Your task to perform on an android device: turn on improve location accuracy Image 0: 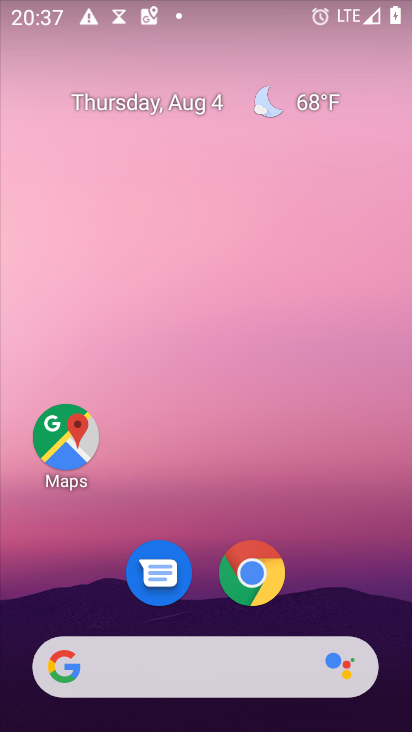
Step 0: drag from (250, 645) to (292, 234)
Your task to perform on an android device: turn on improve location accuracy Image 1: 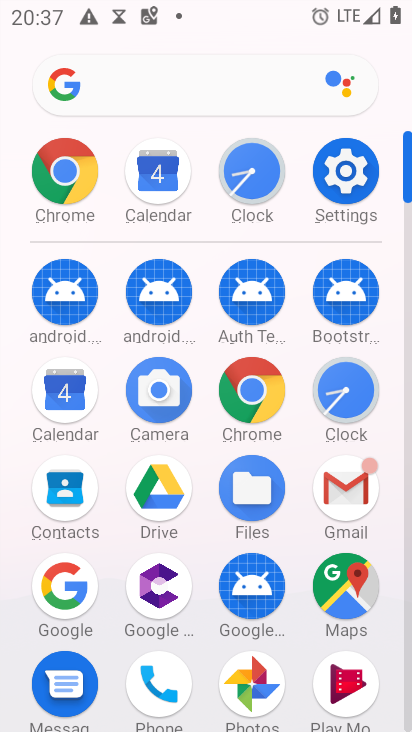
Step 1: click (357, 165)
Your task to perform on an android device: turn on improve location accuracy Image 2: 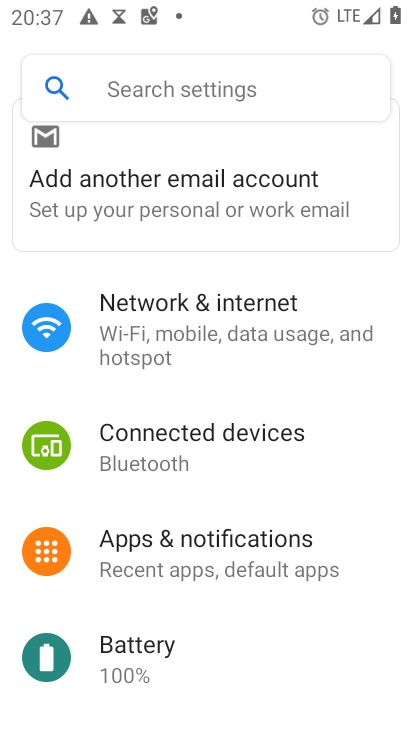
Step 2: drag from (160, 515) to (185, 112)
Your task to perform on an android device: turn on improve location accuracy Image 3: 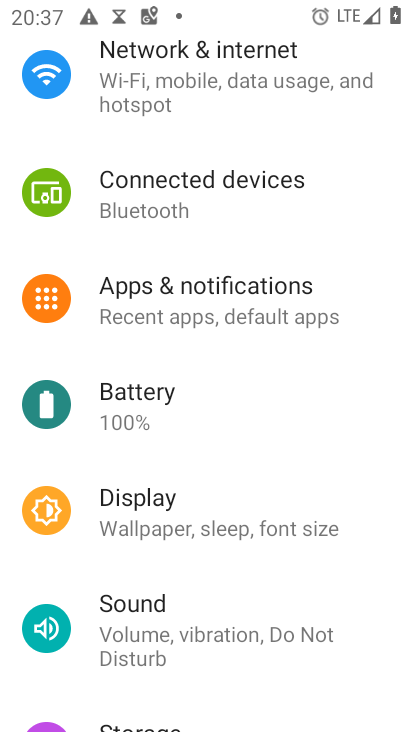
Step 3: drag from (139, 622) to (134, 259)
Your task to perform on an android device: turn on improve location accuracy Image 4: 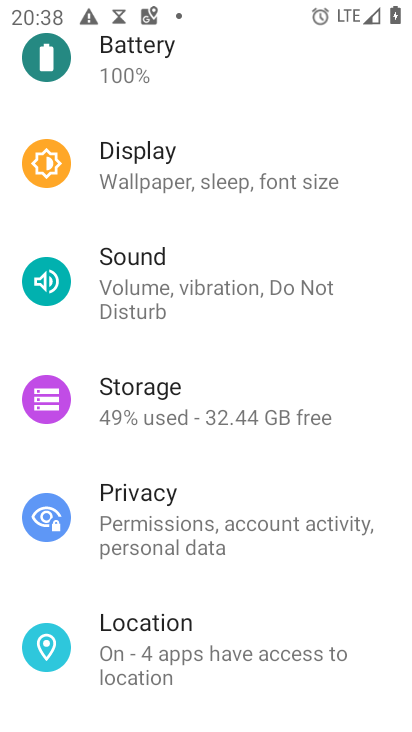
Step 4: click (134, 619)
Your task to perform on an android device: turn on improve location accuracy Image 5: 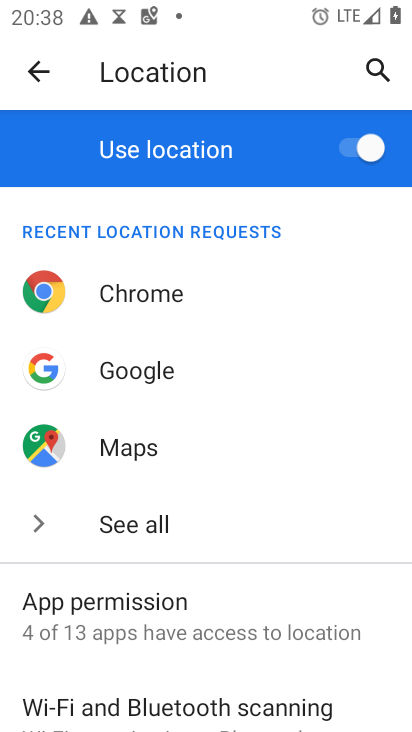
Step 5: drag from (148, 668) to (127, 323)
Your task to perform on an android device: turn on improve location accuracy Image 6: 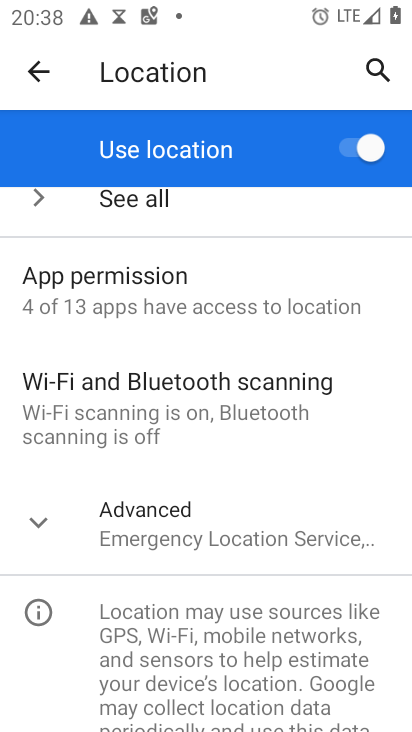
Step 6: click (158, 532)
Your task to perform on an android device: turn on improve location accuracy Image 7: 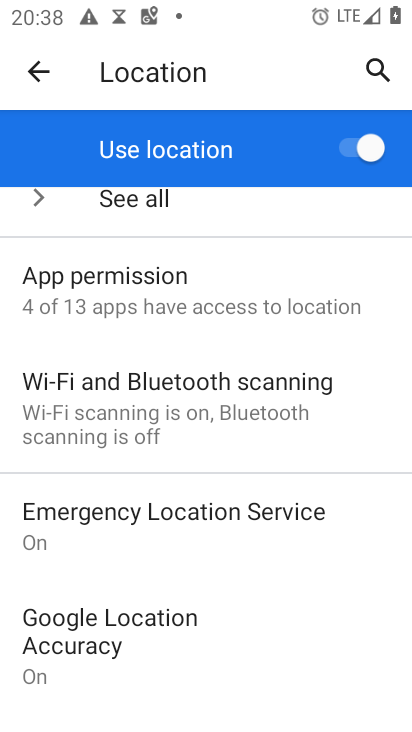
Step 7: click (116, 628)
Your task to perform on an android device: turn on improve location accuracy Image 8: 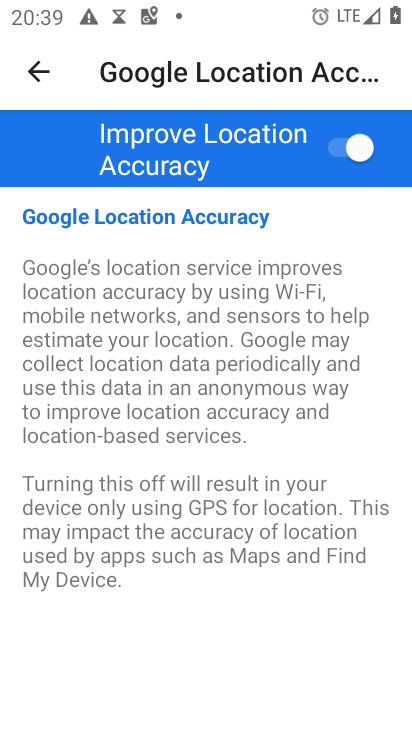
Step 8: task complete